Your task to perform on an android device: Go to location settings Image 0: 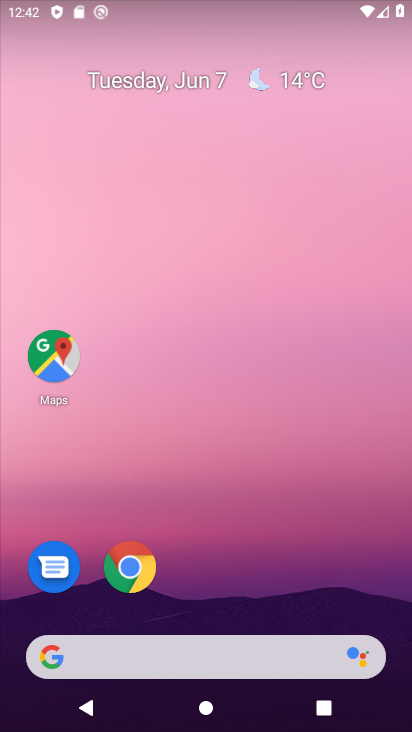
Step 0: drag from (280, 604) to (318, 0)
Your task to perform on an android device: Go to location settings Image 1: 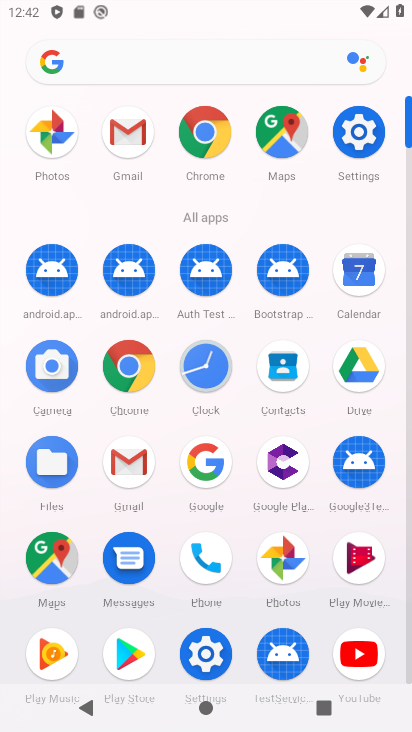
Step 1: click (209, 652)
Your task to perform on an android device: Go to location settings Image 2: 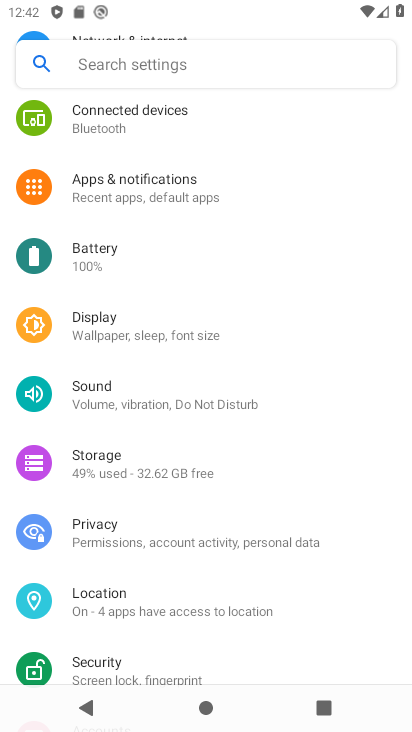
Step 2: click (86, 597)
Your task to perform on an android device: Go to location settings Image 3: 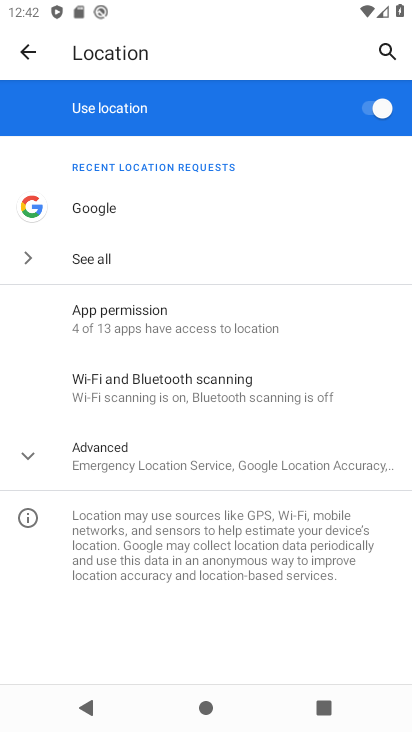
Step 3: task complete